Your task to perform on an android device: turn on translation in the chrome app Image 0: 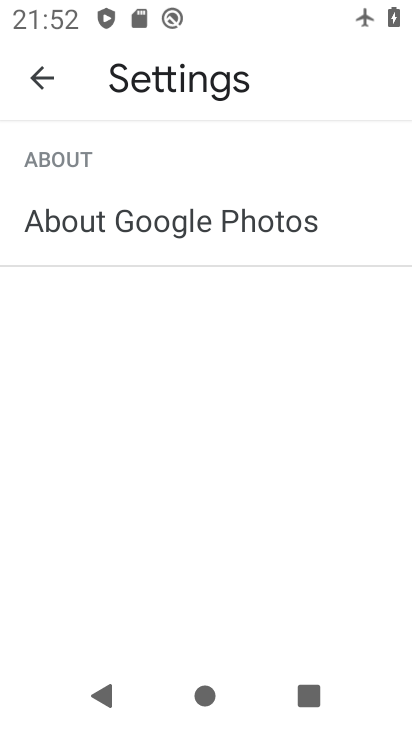
Step 0: press home button
Your task to perform on an android device: turn on translation in the chrome app Image 1: 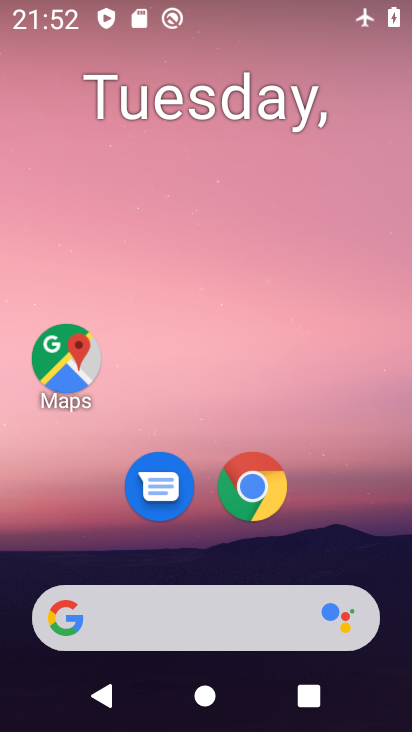
Step 1: drag from (351, 532) to (356, 122)
Your task to perform on an android device: turn on translation in the chrome app Image 2: 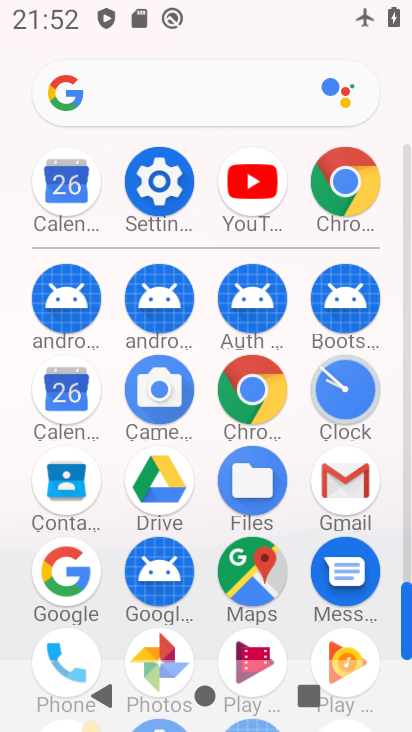
Step 2: click (249, 406)
Your task to perform on an android device: turn on translation in the chrome app Image 3: 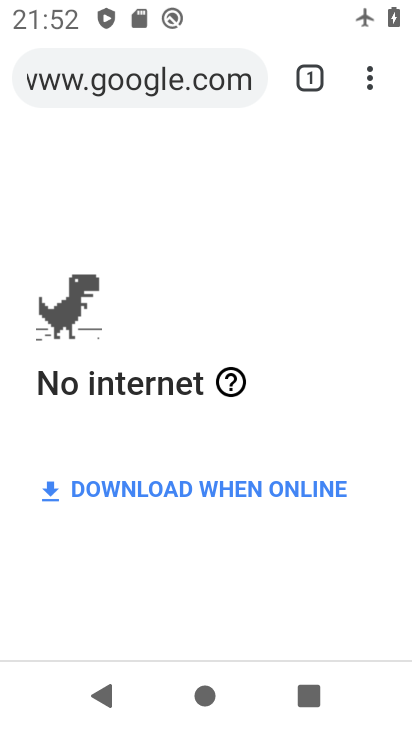
Step 3: click (368, 86)
Your task to perform on an android device: turn on translation in the chrome app Image 4: 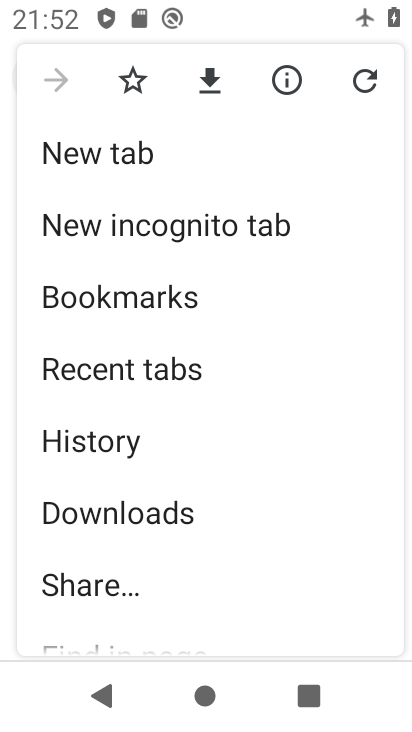
Step 4: drag from (323, 420) to (309, 344)
Your task to perform on an android device: turn on translation in the chrome app Image 5: 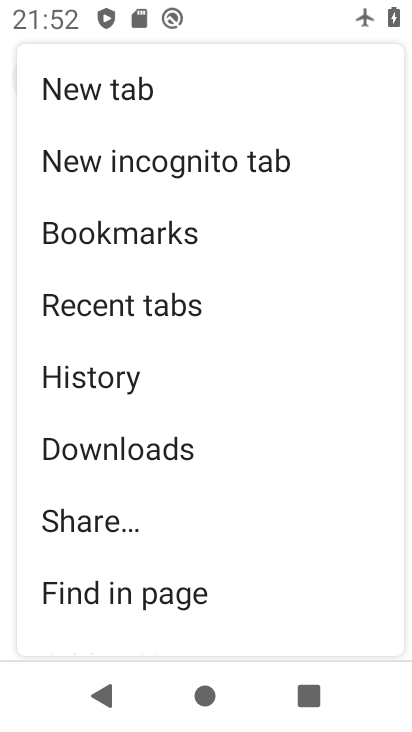
Step 5: drag from (295, 488) to (297, 402)
Your task to perform on an android device: turn on translation in the chrome app Image 6: 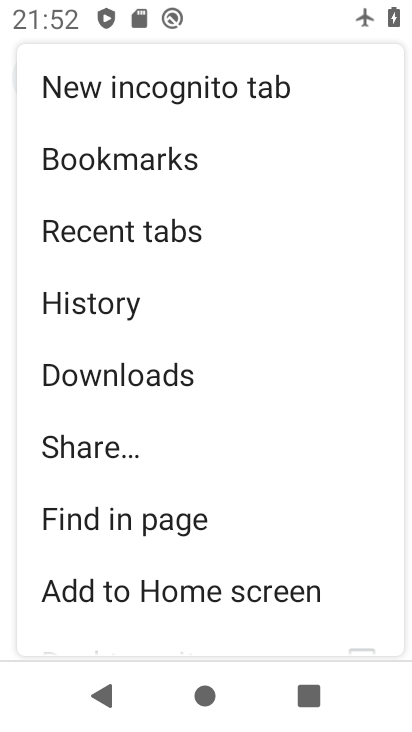
Step 6: drag from (281, 505) to (281, 385)
Your task to perform on an android device: turn on translation in the chrome app Image 7: 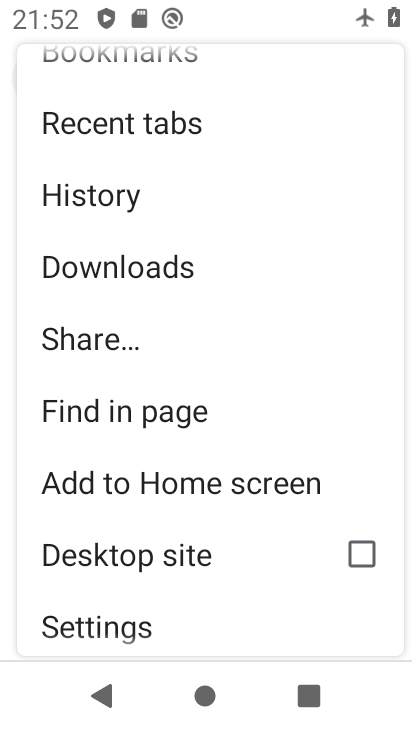
Step 7: drag from (262, 531) to (266, 340)
Your task to perform on an android device: turn on translation in the chrome app Image 8: 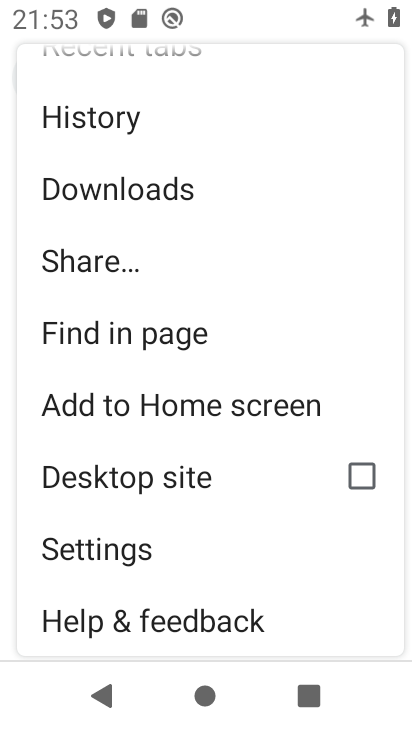
Step 8: click (145, 551)
Your task to perform on an android device: turn on translation in the chrome app Image 9: 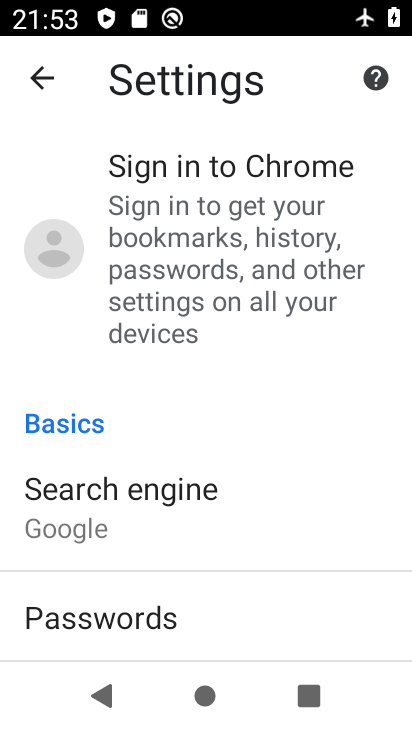
Step 9: drag from (337, 539) to (327, 450)
Your task to perform on an android device: turn on translation in the chrome app Image 10: 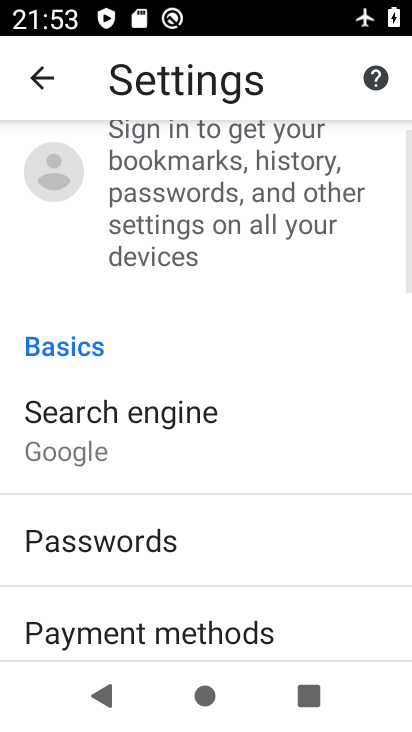
Step 10: drag from (298, 540) to (305, 446)
Your task to perform on an android device: turn on translation in the chrome app Image 11: 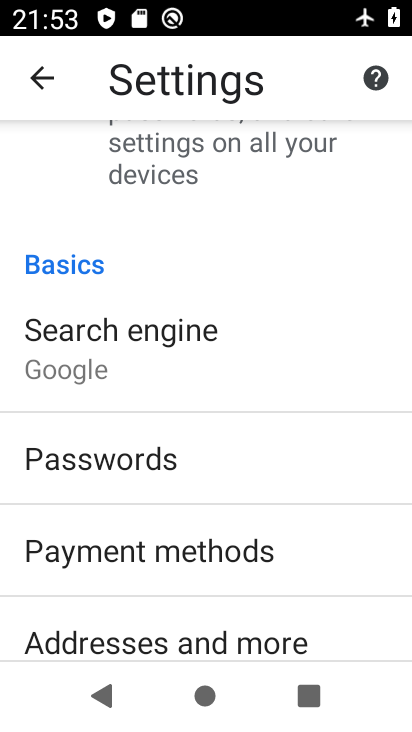
Step 11: drag from (316, 552) to (319, 400)
Your task to perform on an android device: turn on translation in the chrome app Image 12: 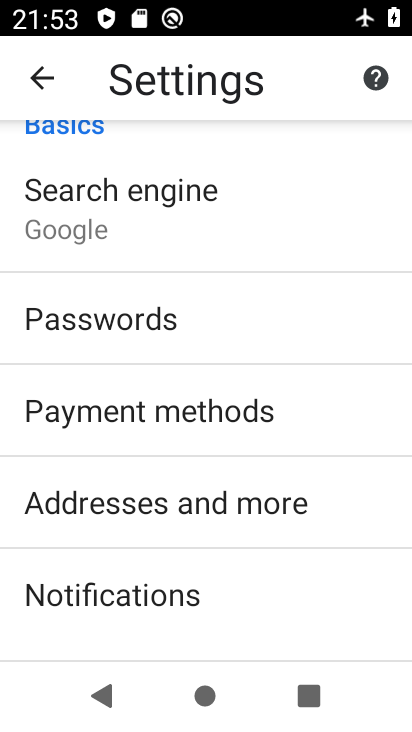
Step 12: drag from (325, 560) to (331, 427)
Your task to perform on an android device: turn on translation in the chrome app Image 13: 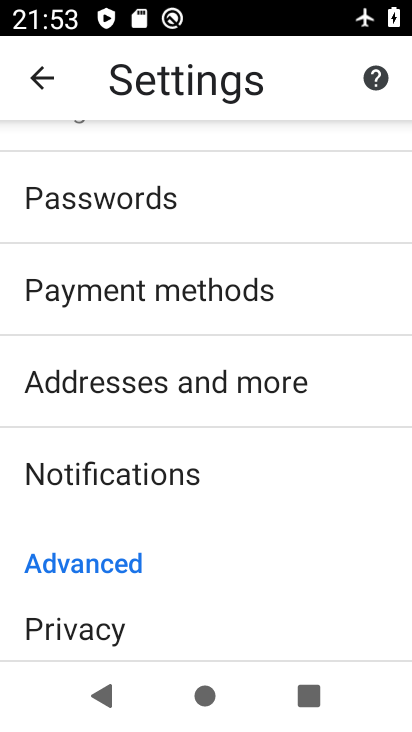
Step 13: drag from (311, 548) to (321, 436)
Your task to perform on an android device: turn on translation in the chrome app Image 14: 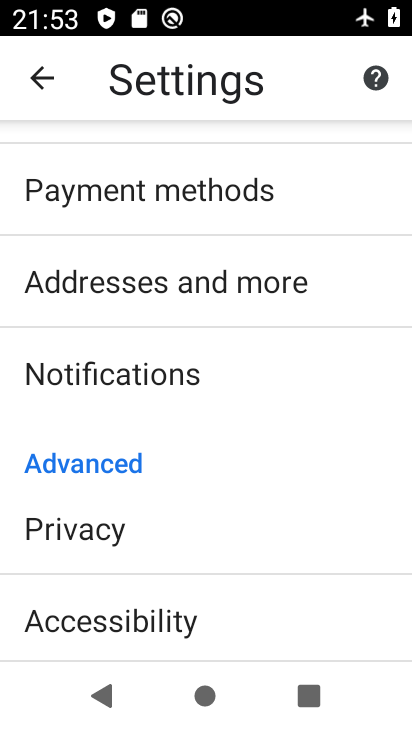
Step 14: drag from (310, 566) to (309, 476)
Your task to perform on an android device: turn on translation in the chrome app Image 15: 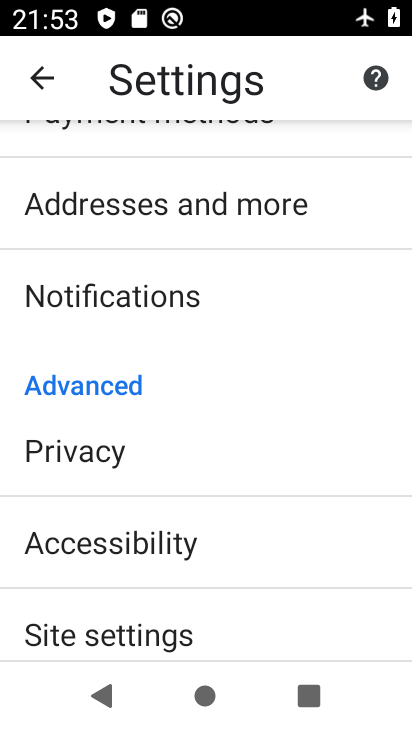
Step 15: drag from (308, 600) to (307, 497)
Your task to perform on an android device: turn on translation in the chrome app Image 16: 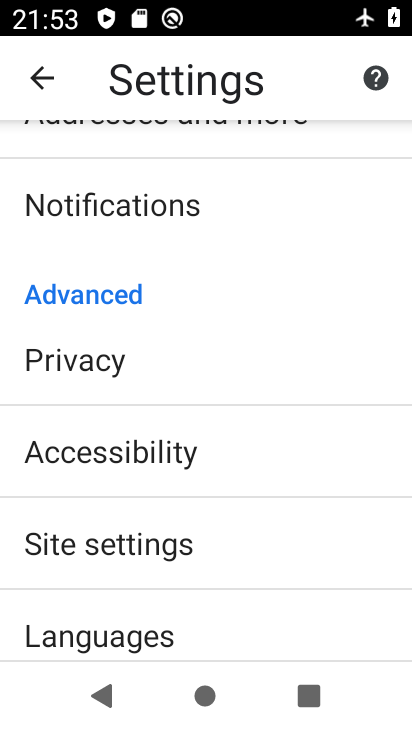
Step 16: drag from (287, 587) to (284, 469)
Your task to perform on an android device: turn on translation in the chrome app Image 17: 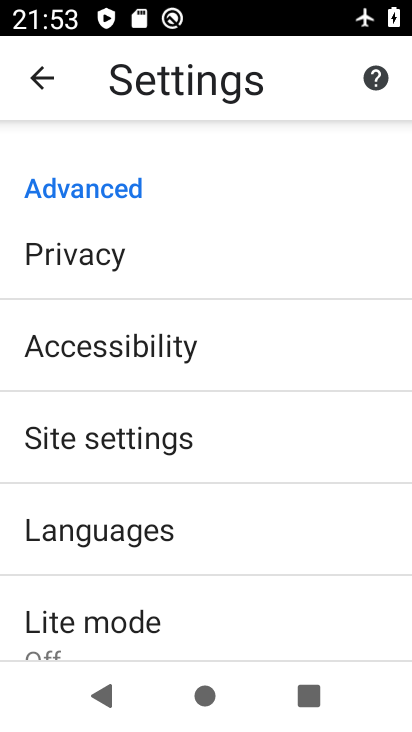
Step 17: click (266, 533)
Your task to perform on an android device: turn on translation in the chrome app Image 18: 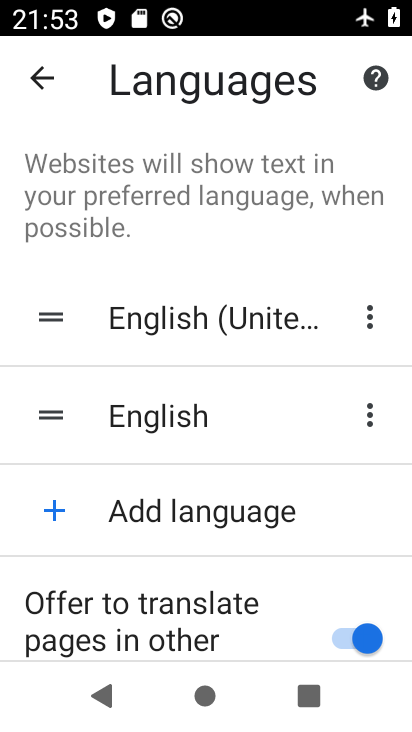
Step 18: task complete